Your task to perform on an android device: Search for "jbl flip 4" on bestbuy.com, select the first entry, and add it to the cart. Image 0: 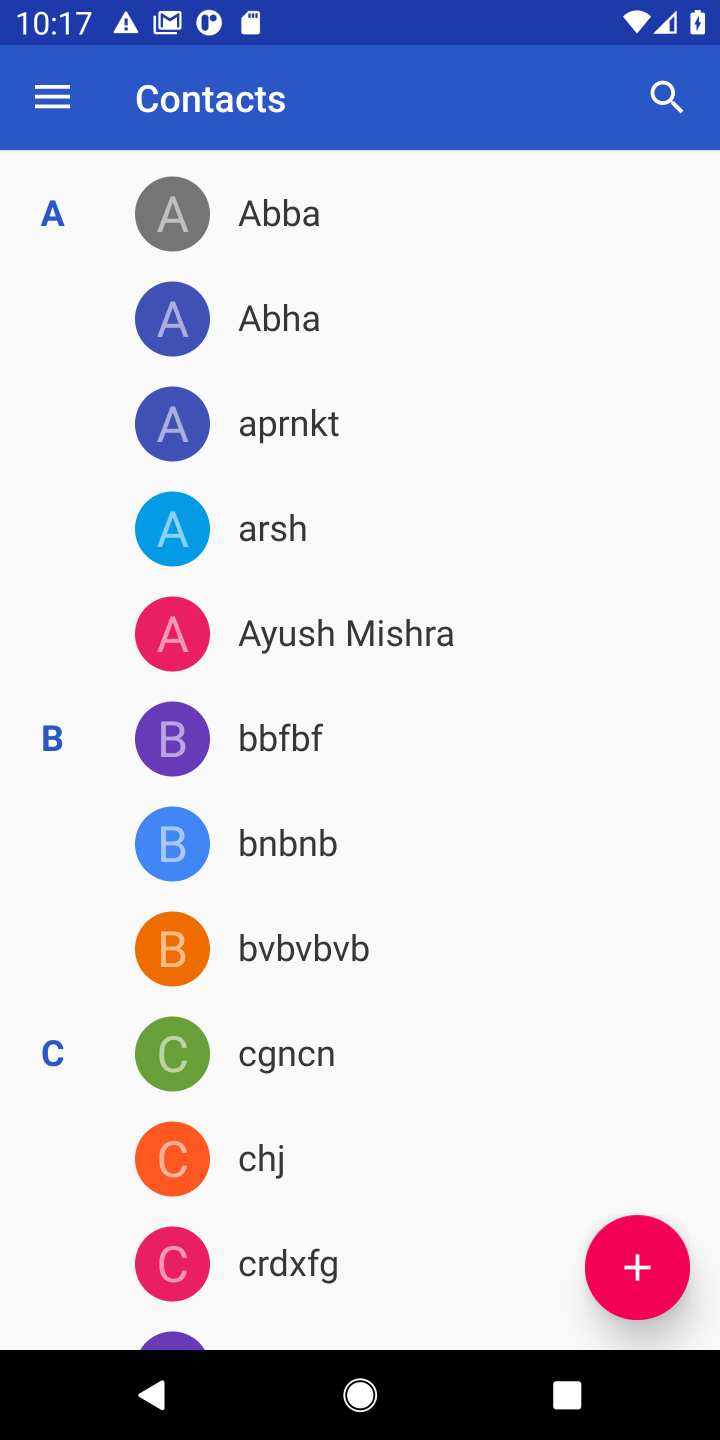
Step 0: press home button
Your task to perform on an android device: Search for "jbl flip 4" on bestbuy.com, select the first entry, and add it to the cart. Image 1: 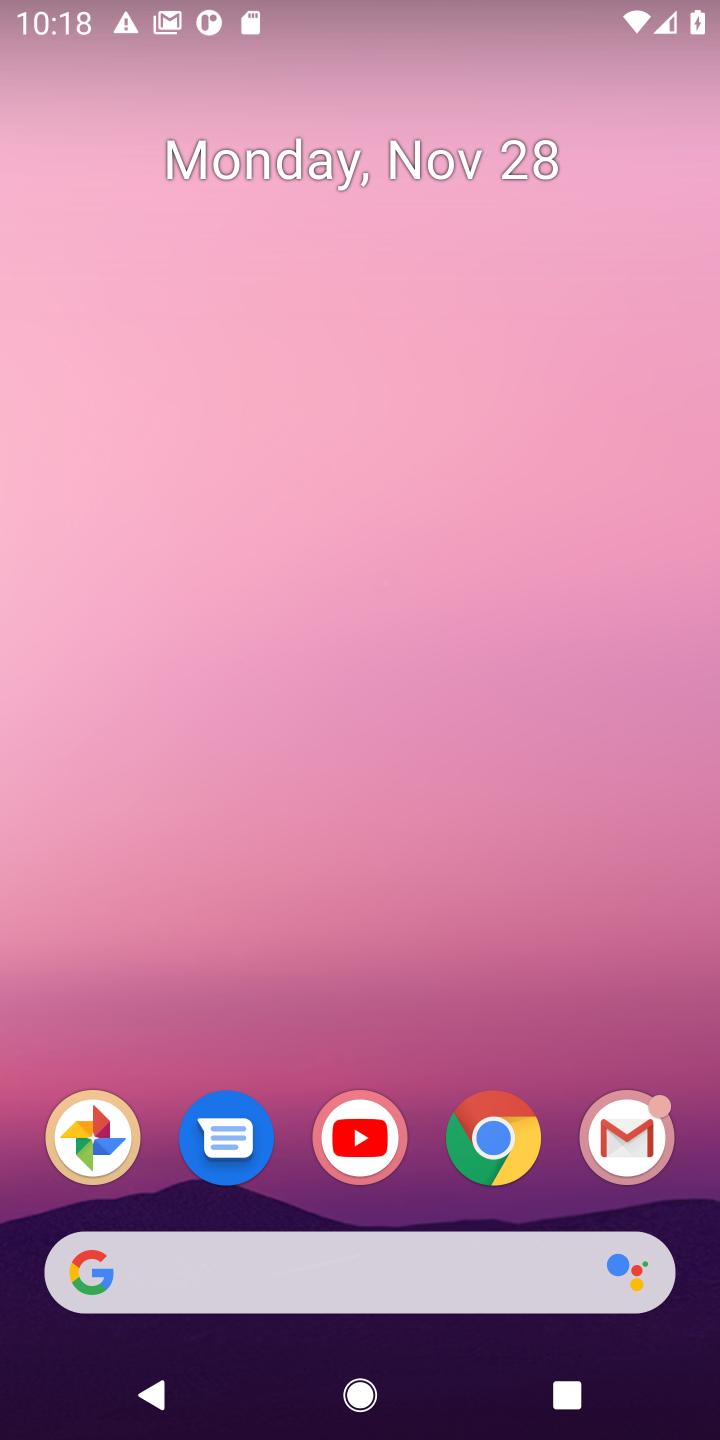
Step 1: click (481, 1152)
Your task to perform on an android device: Search for "jbl flip 4" on bestbuy.com, select the first entry, and add it to the cart. Image 2: 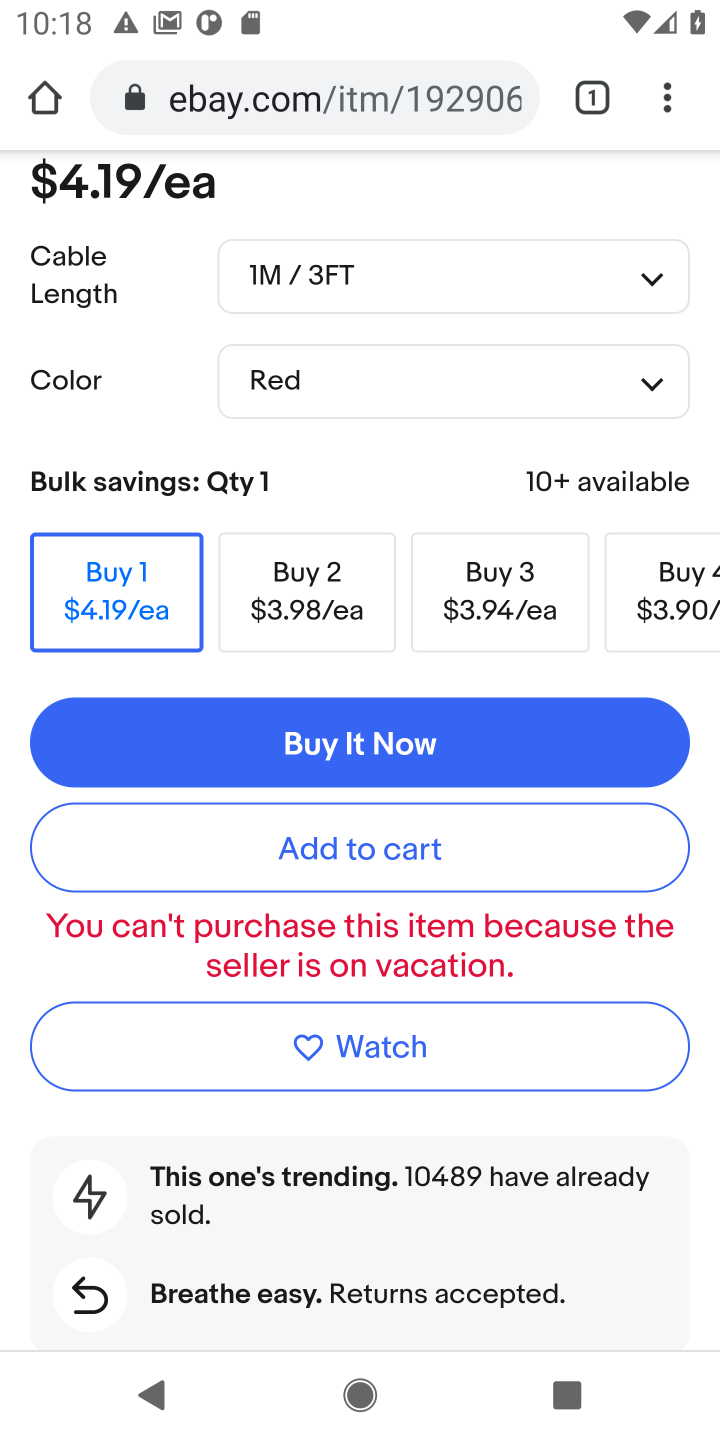
Step 2: click (283, 99)
Your task to perform on an android device: Search for "jbl flip 4" on bestbuy.com, select the first entry, and add it to the cart. Image 3: 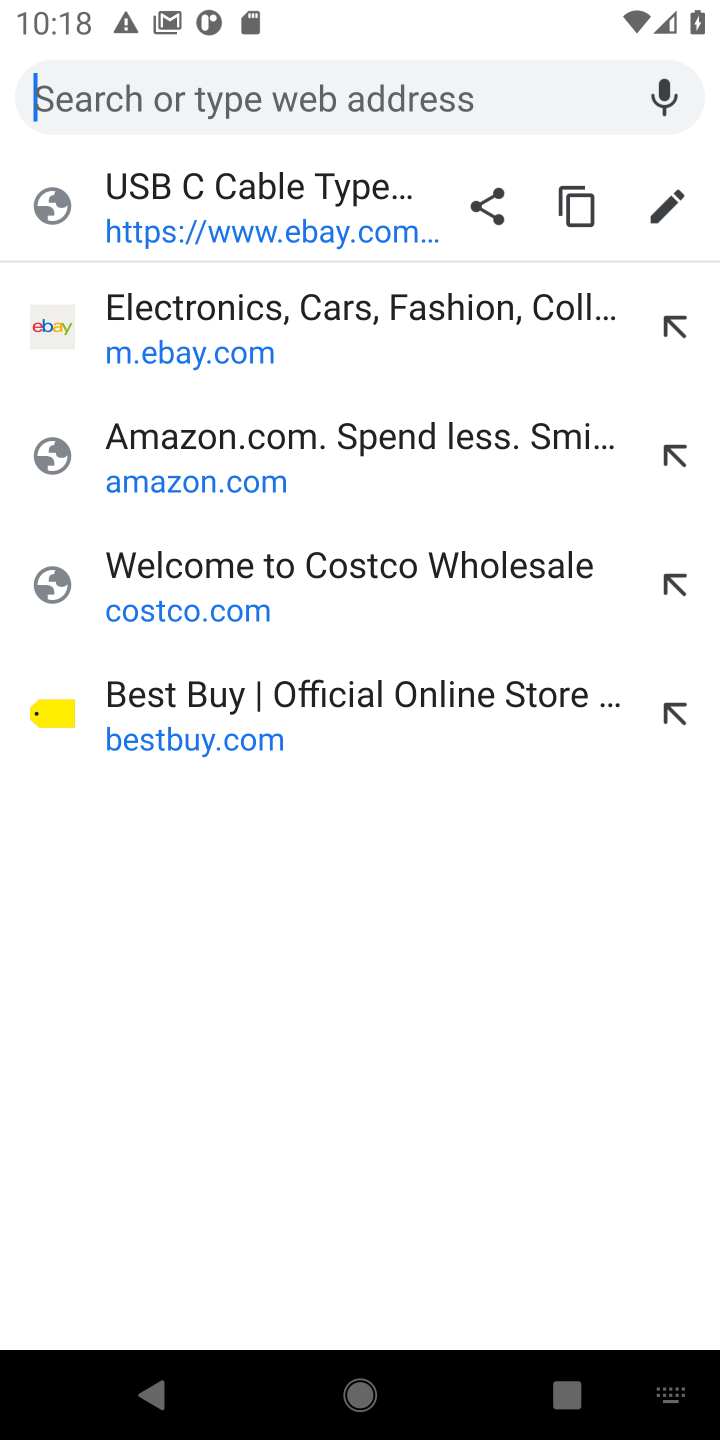
Step 3: click (133, 685)
Your task to perform on an android device: Search for "jbl flip 4" on bestbuy.com, select the first entry, and add it to the cart. Image 4: 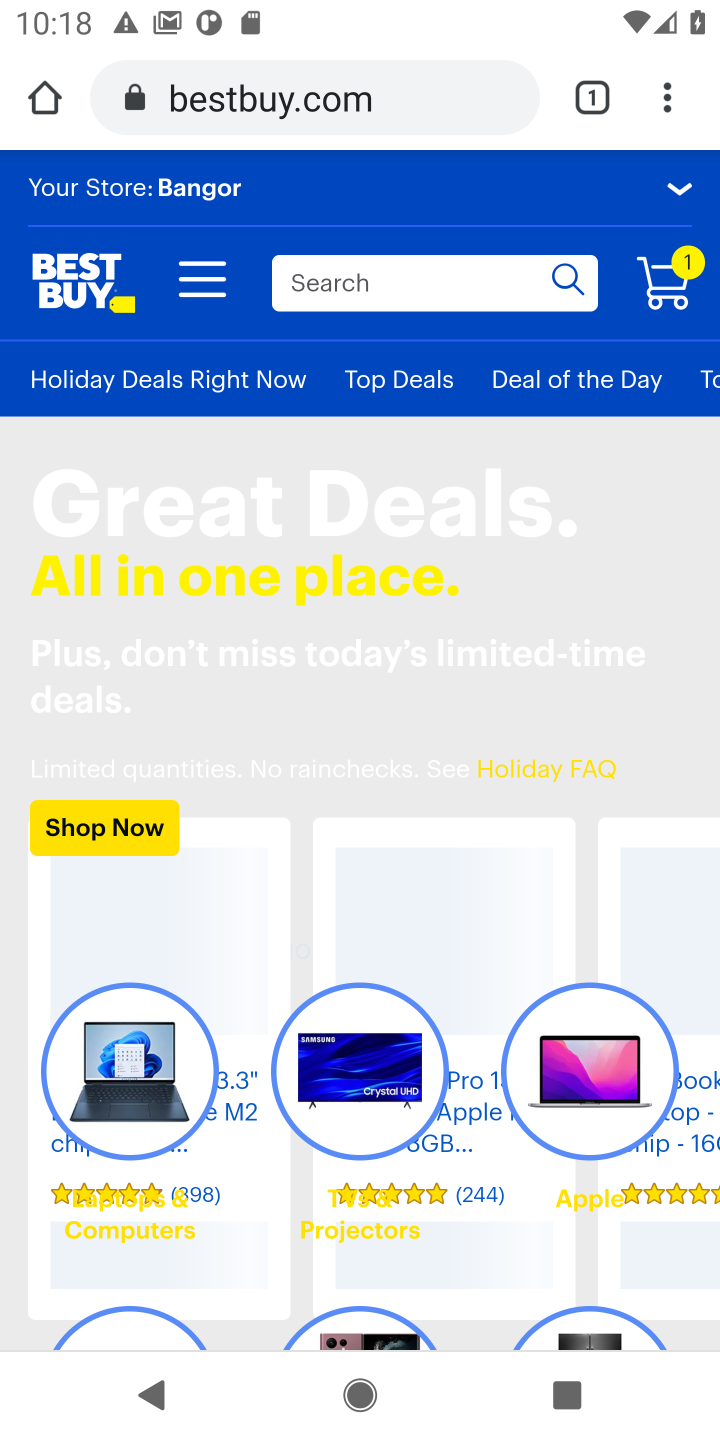
Step 4: click (322, 297)
Your task to perform on an android device: Search for "jbl flip 4" on bestbuy.com, select the first entry, and add it to the cart. Image 5: 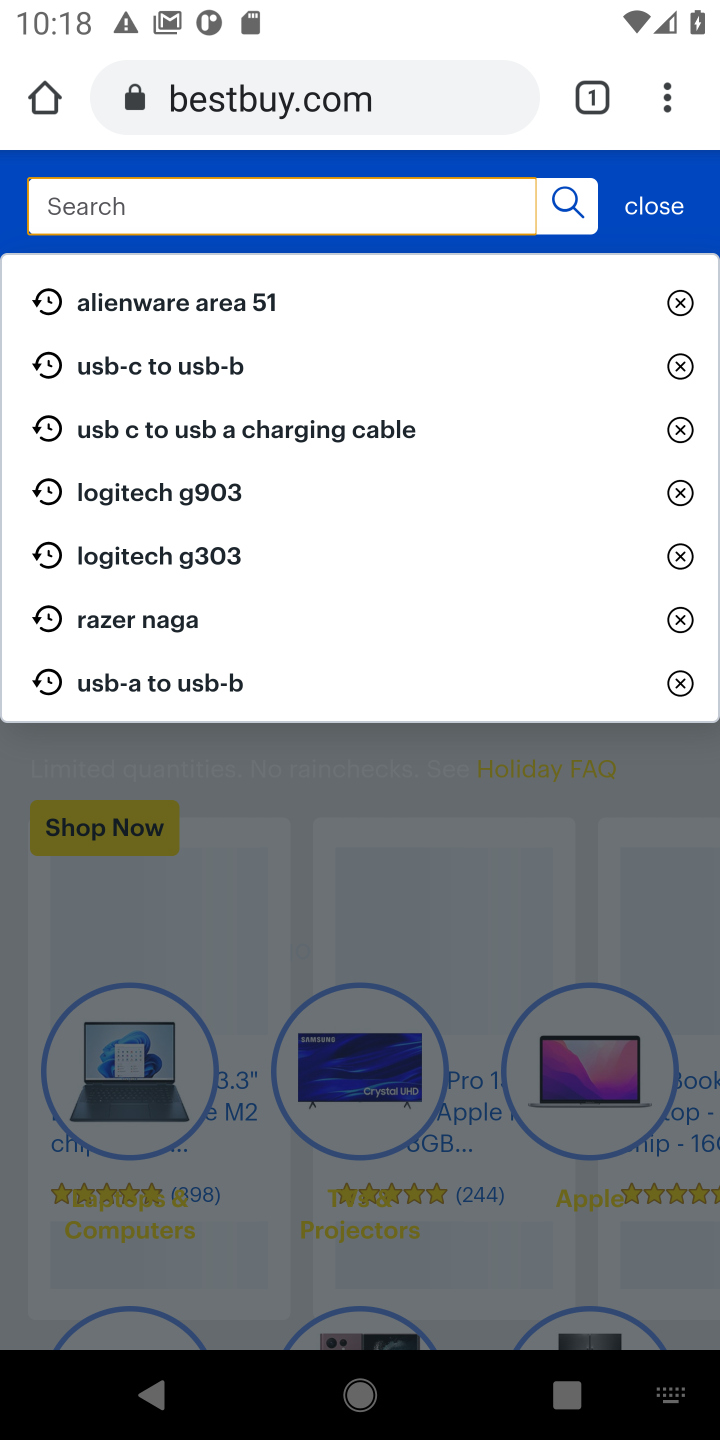
Step 5: type "jbl flip 4"
Your task to perform on an android device: Search for "jbl flip 4" on bestbuy.com, select the first entry, and add it to the cart. Image 6: 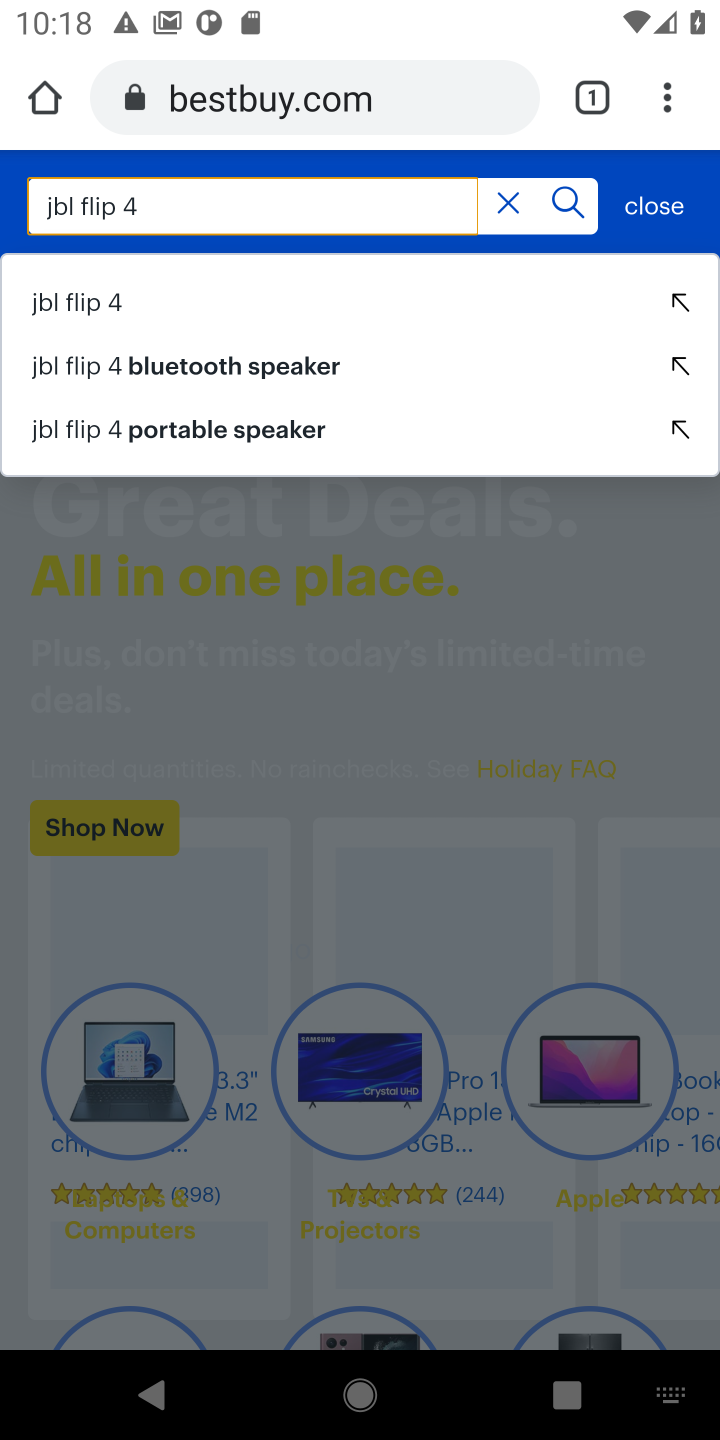
Step 6: click (85, 313)
Your task to perform on an android device: Search for "jbl flip 4" on bestbuy.com, select the first entry, and add it to the cart. Image 7: 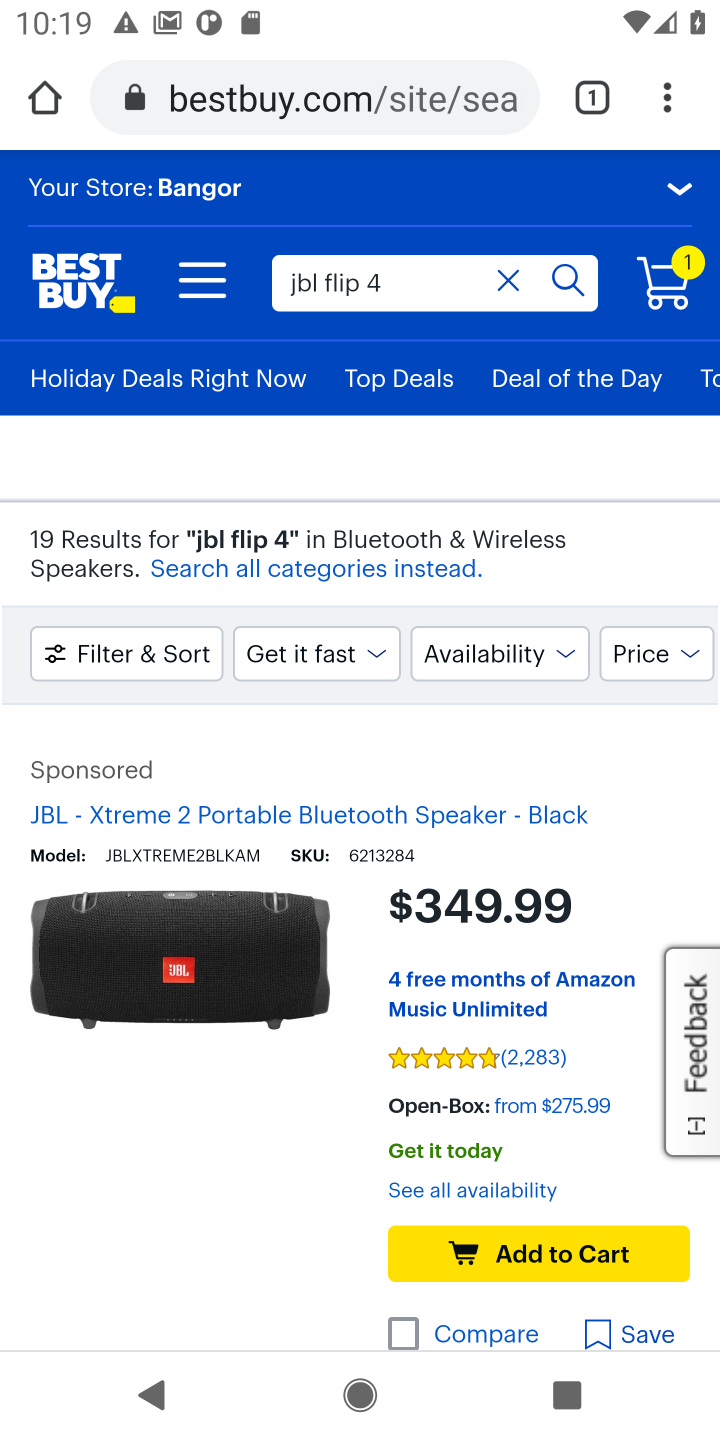
Step 7: task complete